Your task to perform on an android device: Look up the best rated gaming chairs on Target. Image 0: 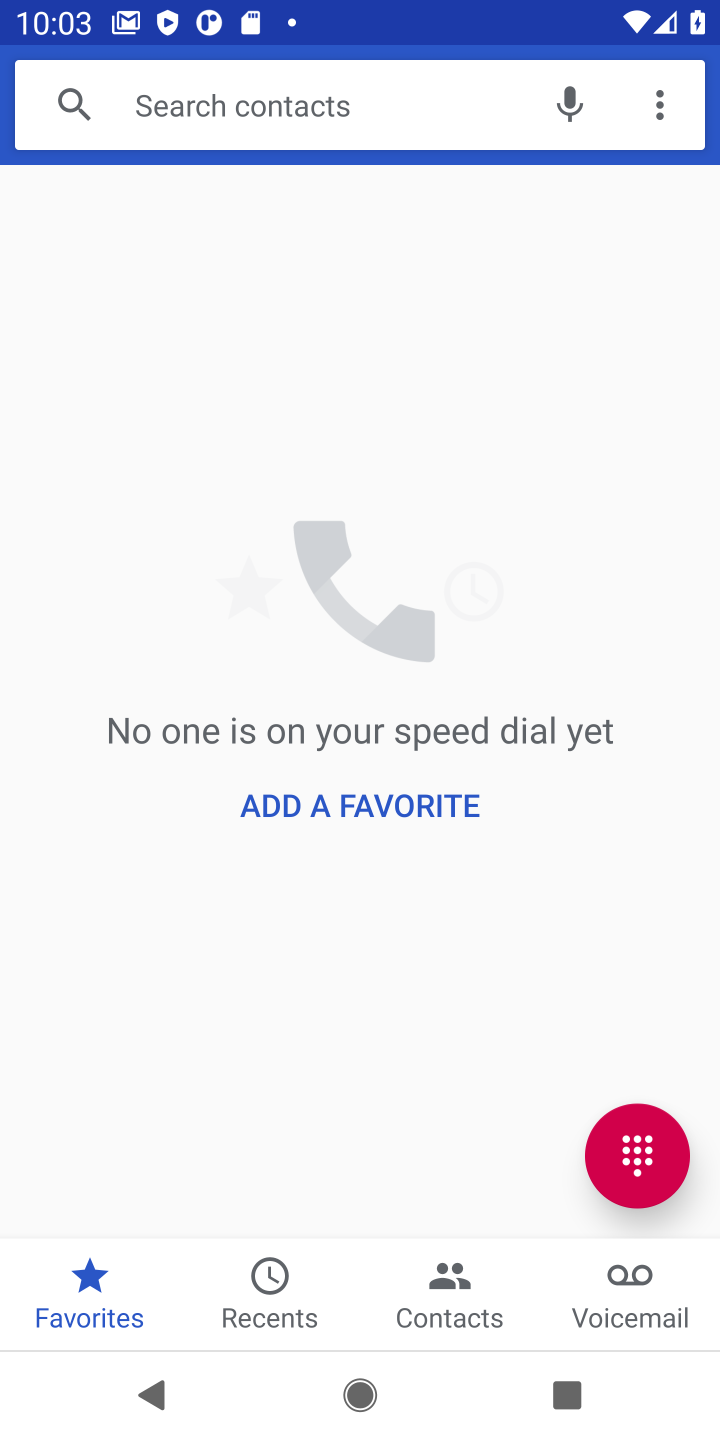
Step 0: press home button
Your task to perform on an android device: Look up the best rated gaming chairs on Target. Image 1: 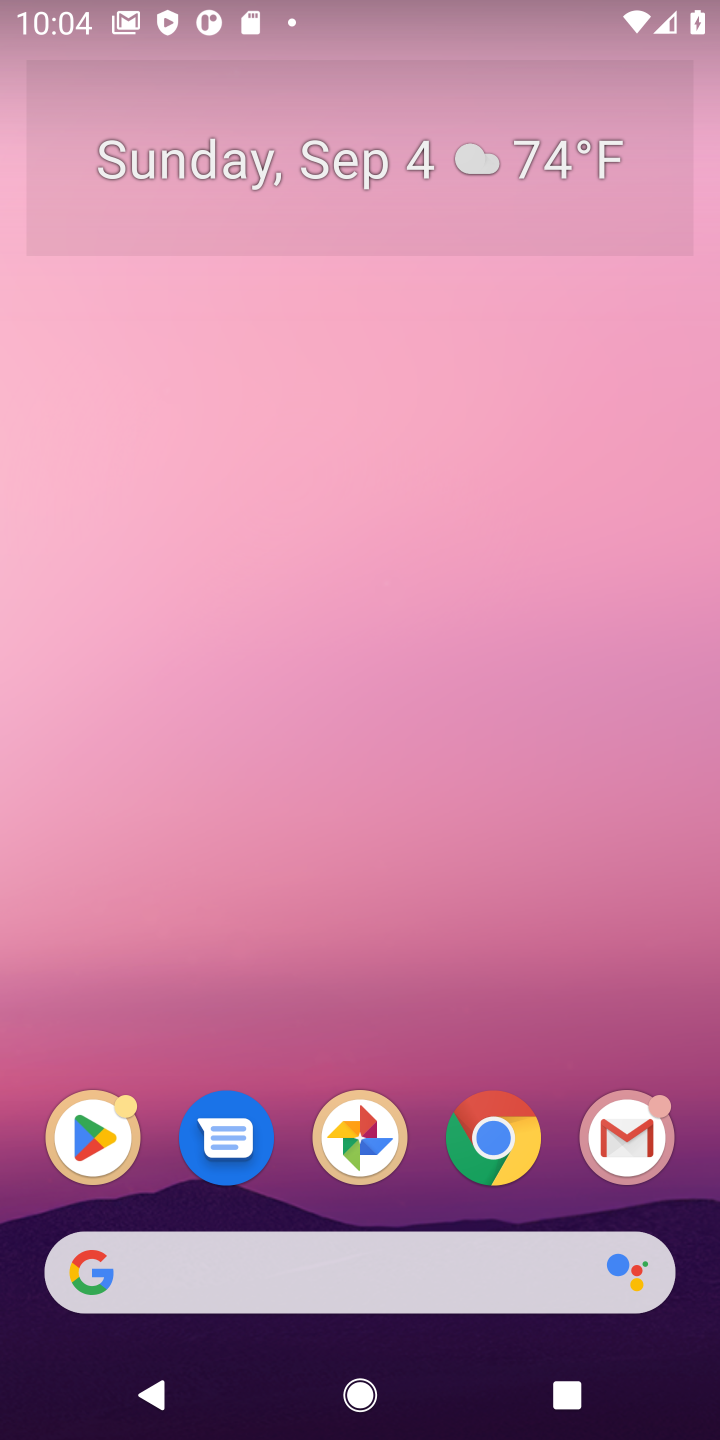
Step 1: drag from (327, 1258) to (316, 450)
Your task to perform on an android device: Look up the best rated gaming chairs on Target. Image 2: 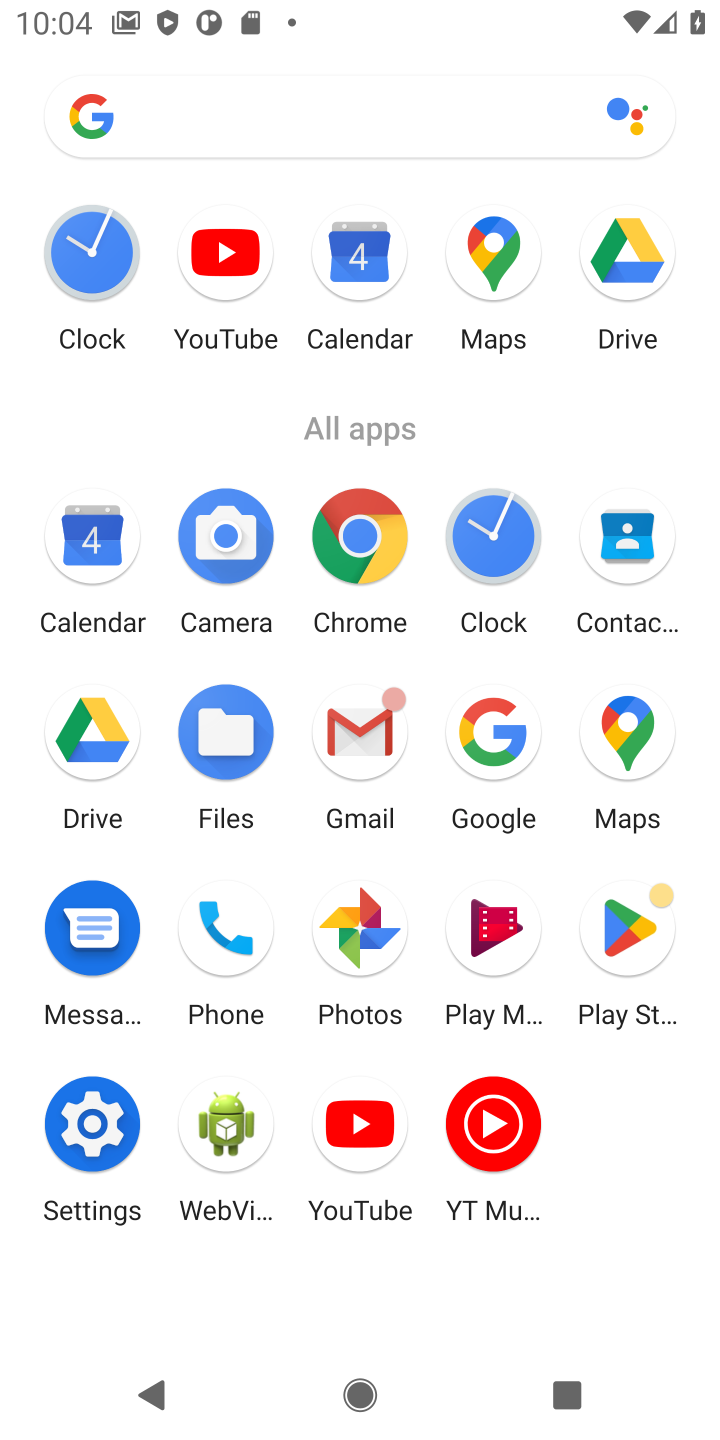
Step 2: click (375, 531)
Your task to perform on an android device: Look up the best rated gaming chairs on Target. Image 3: 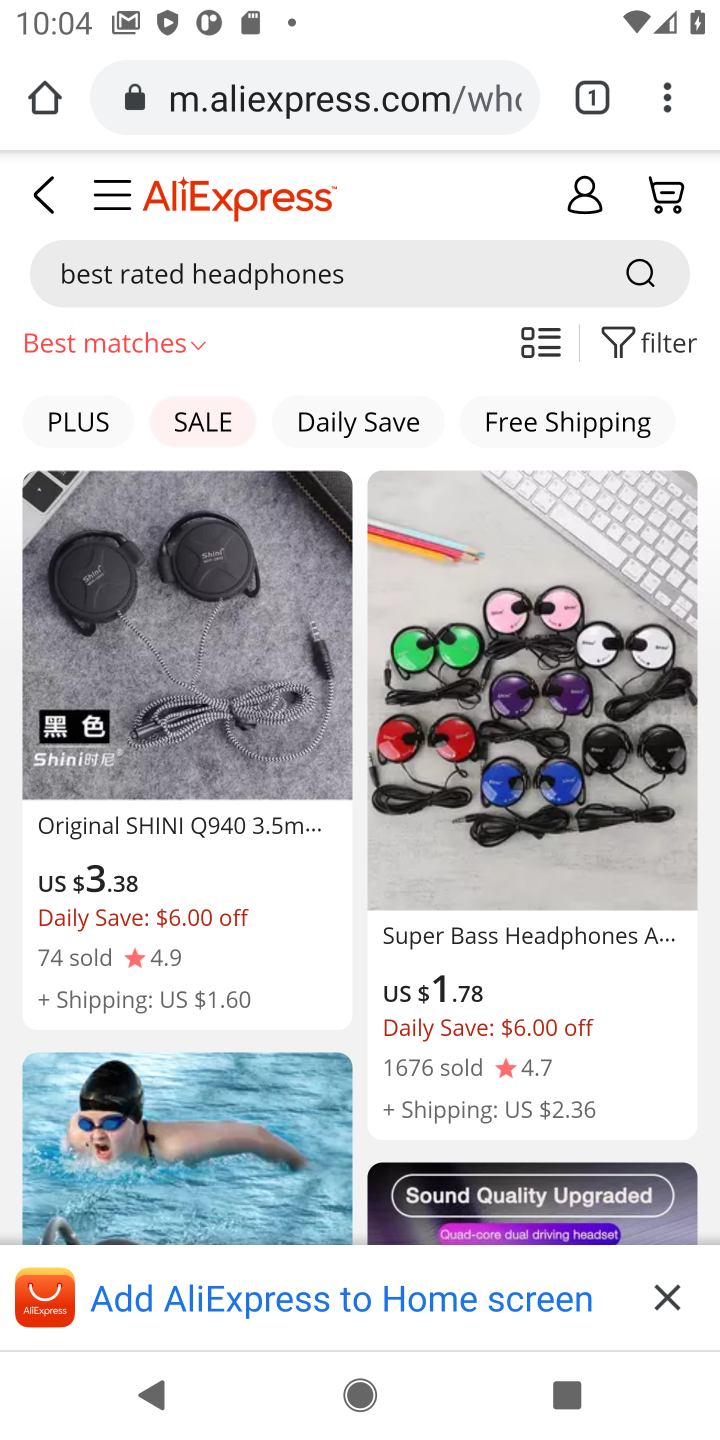
Step 3: click (275, 95)
Your task to perform on an android device: Look up the best rated gaming chairs on Target. Image 4: 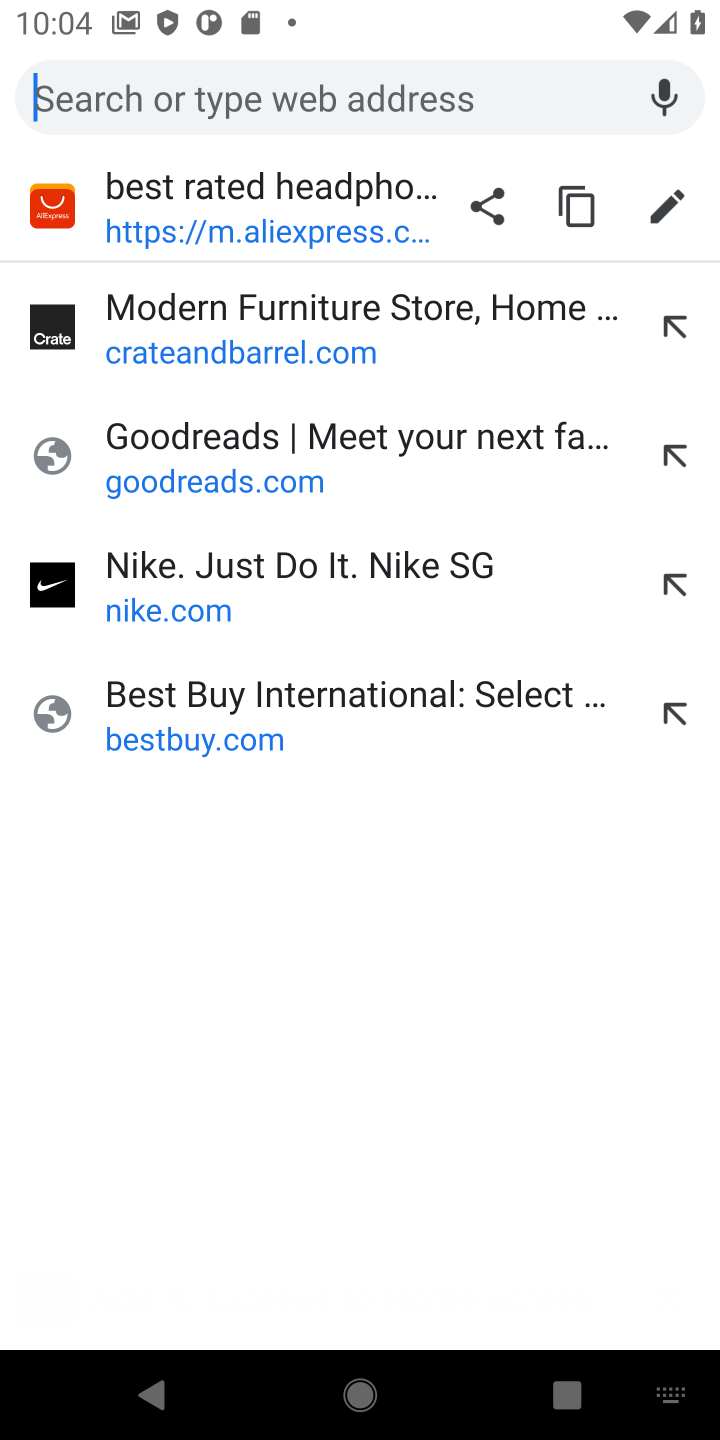
Step 4: type "target"
Your task to perform on an android device: Look up the best rated gaming chairs on Target. Image 5: 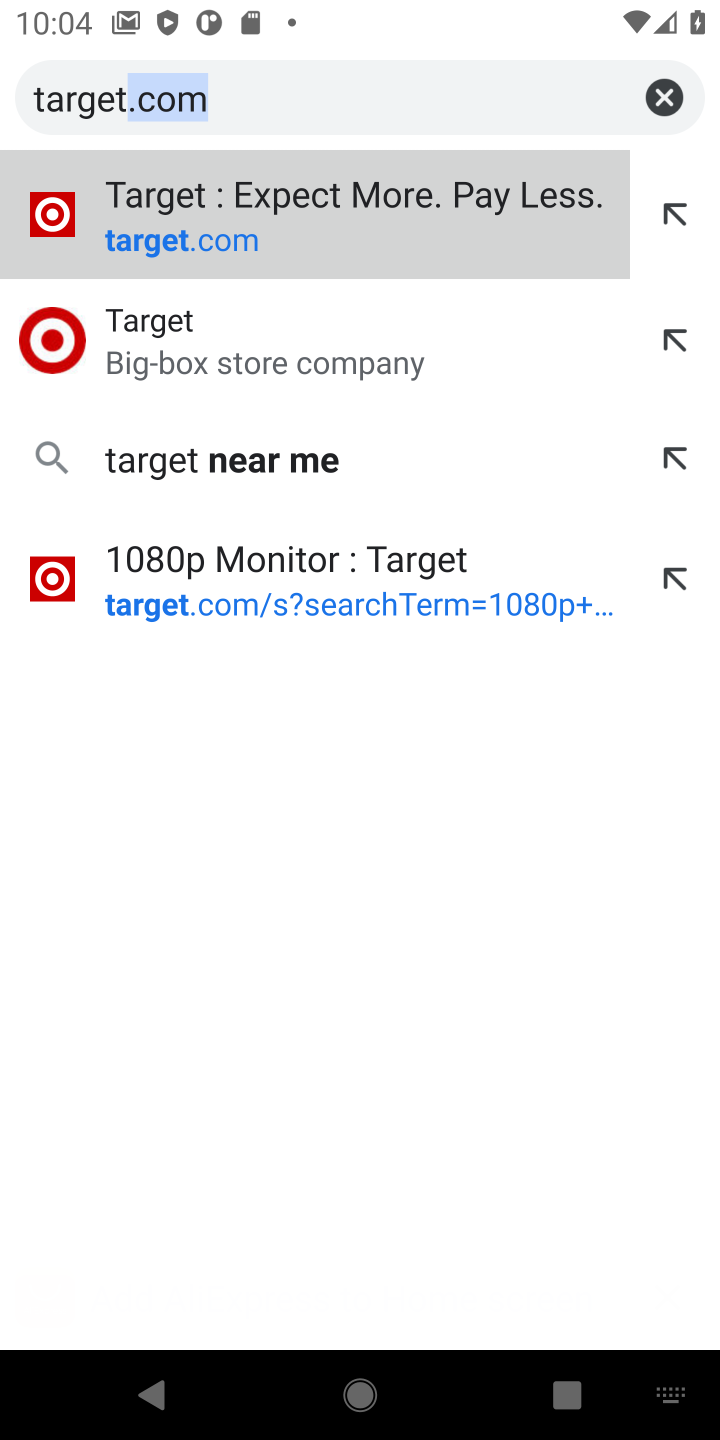
Step 5: click (492, 196)
Your task to perform on an android device: Look up the best rated gaming chairs on Target. Image 6: 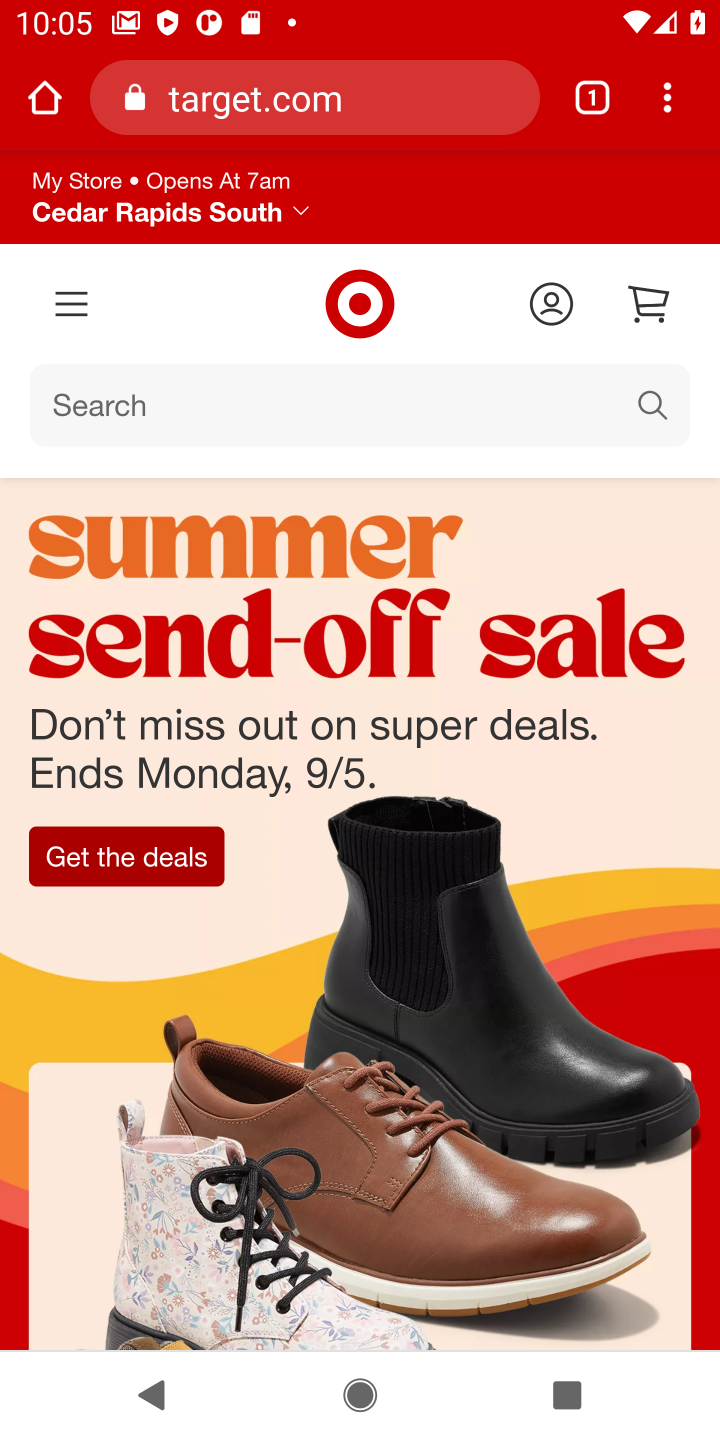
Step 6: click (167, 374)
Your task to perform on an android device: Look up the best rated gaming chairs on Target. Image 7: 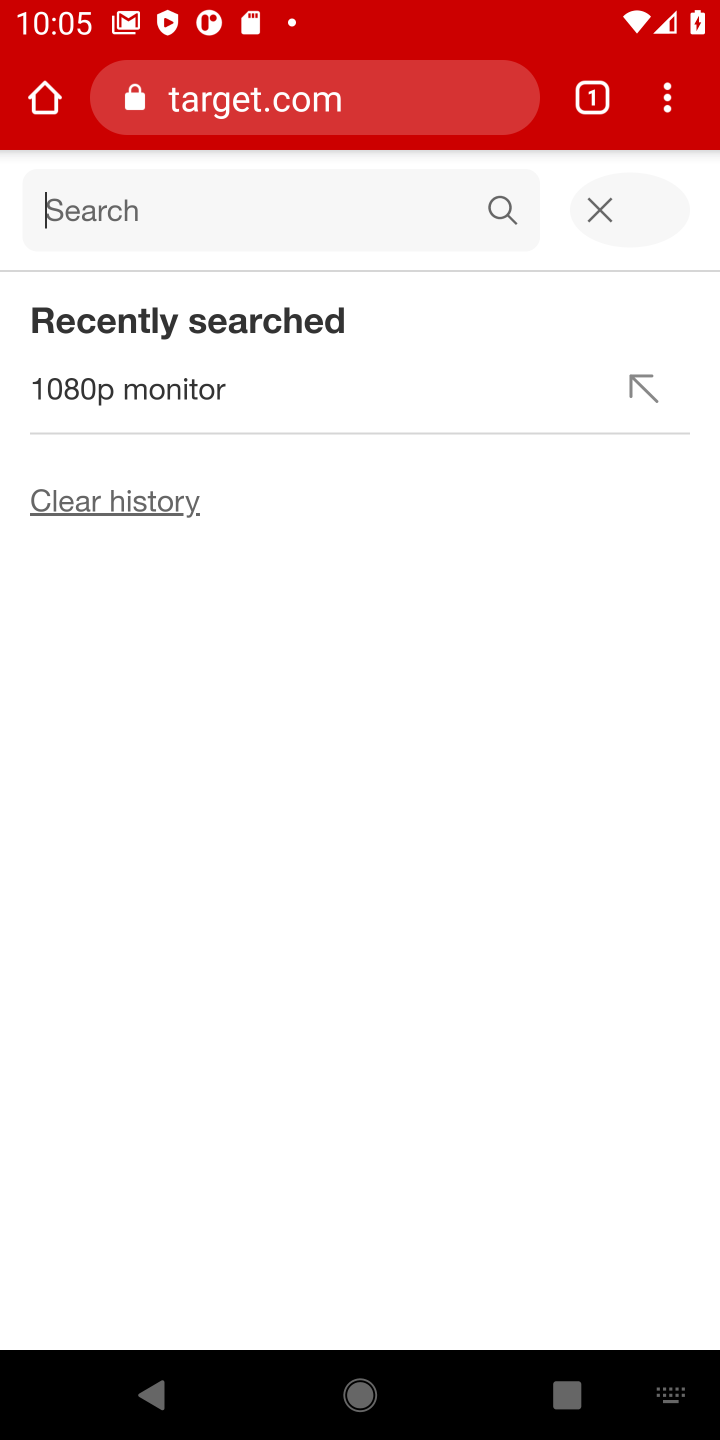
Step 7: type "best rated gaming chairs"
Your task to perform on an android device: Look up the best rated gaming chairs on Target. Image 8: 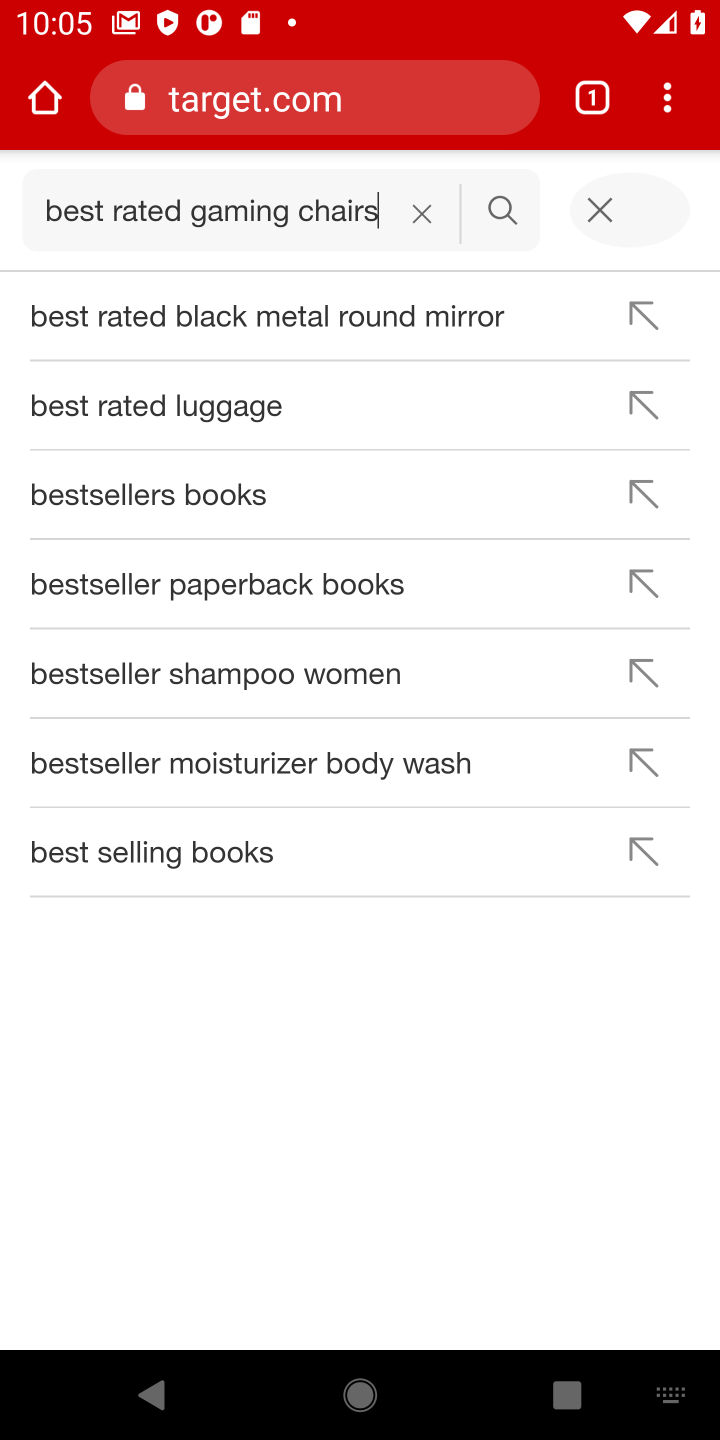
Step 8: press enter
Your task to perform on an android device: Look up the best rated gaming chairs on Target. Image 9: 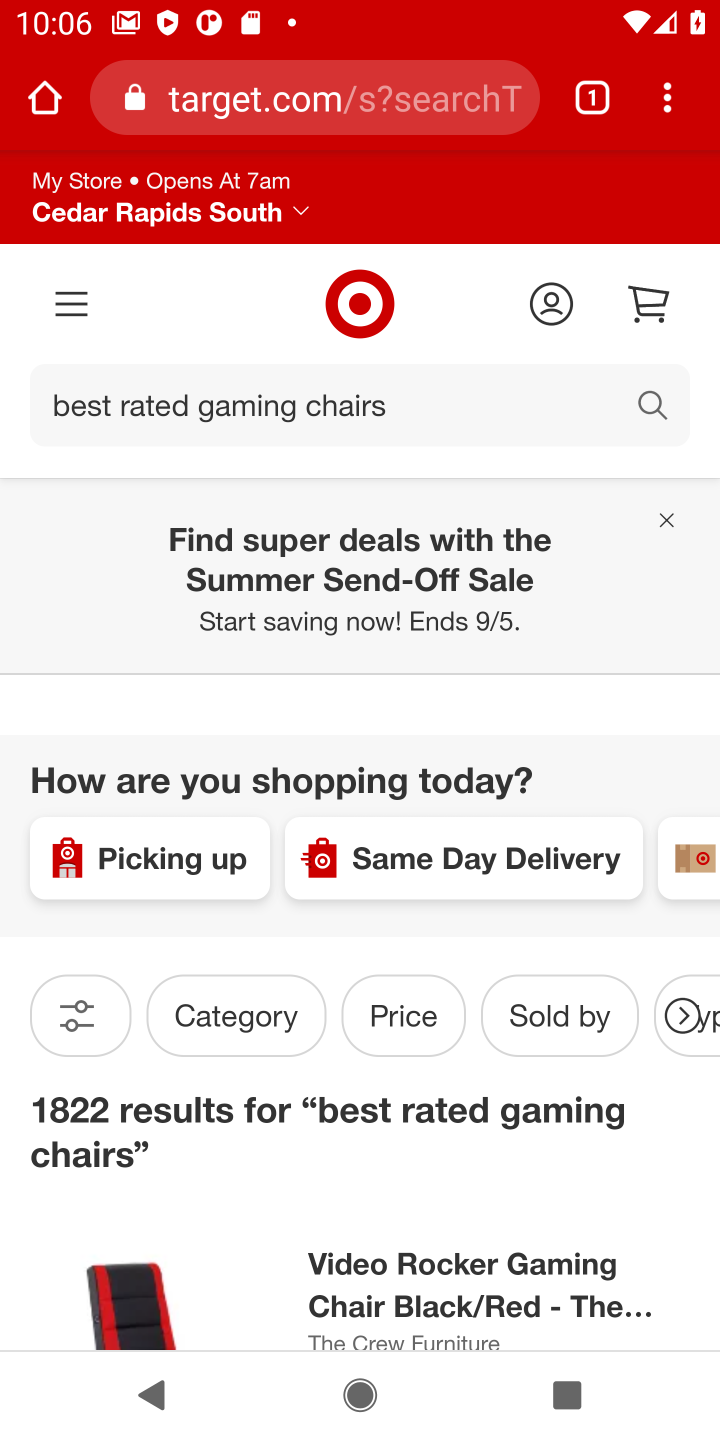
Step 9: task complete